Your task to perform on an android device: check out phone information Image 0: 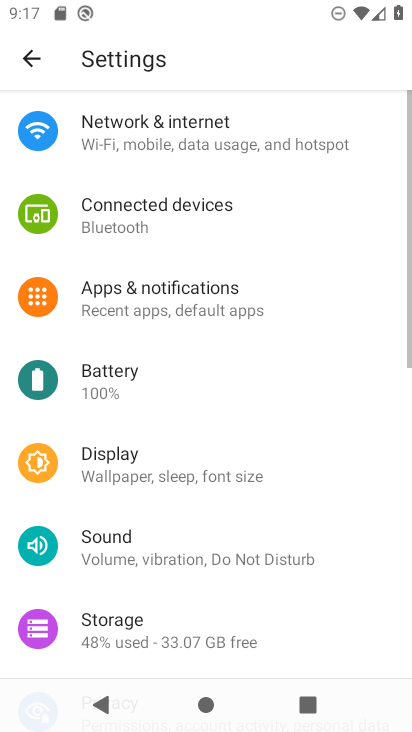
Step 0: press home button
Your task to perform on an android device: check out phone information Image 1: 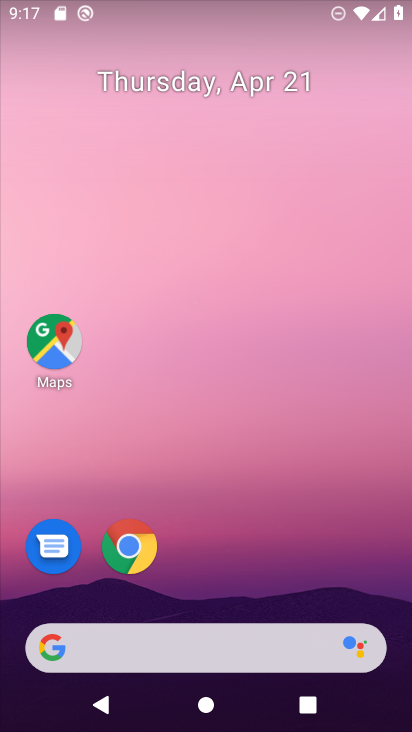
Step 1: drag from (363, 583) to (358, 69)
Your task to perform on an android device: check out phone information Image 2: 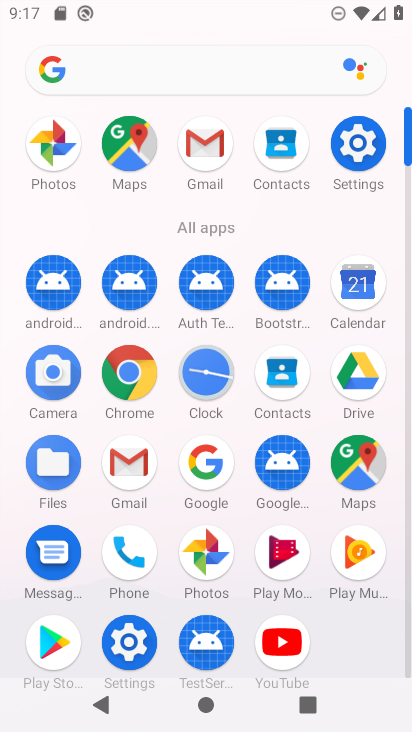
Step 2: click (124, 566)
Your task to perform on an android device: check out phone information Image 3: 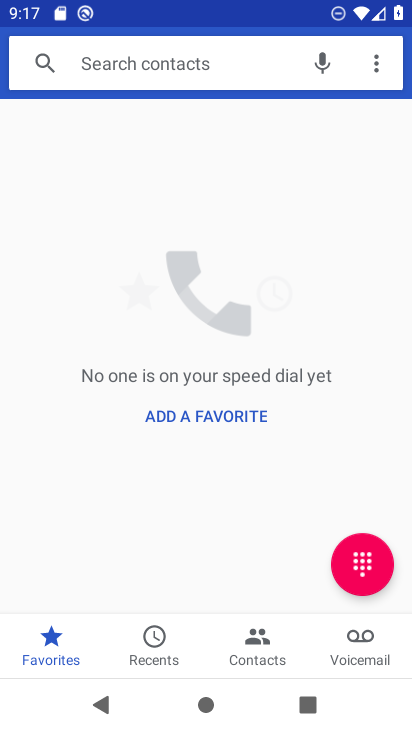
Step 3: click (158, 640)
Your task to perform on an android device: check out phone information Image 4: 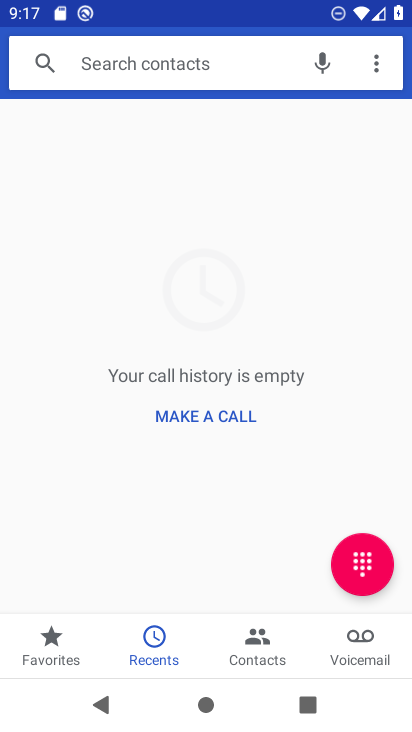
Step 4: task complete